Your task to perform on an android device: Clear all items from cart on target. Add "macbook air" to the cart on target, then select checkout. Image 0: 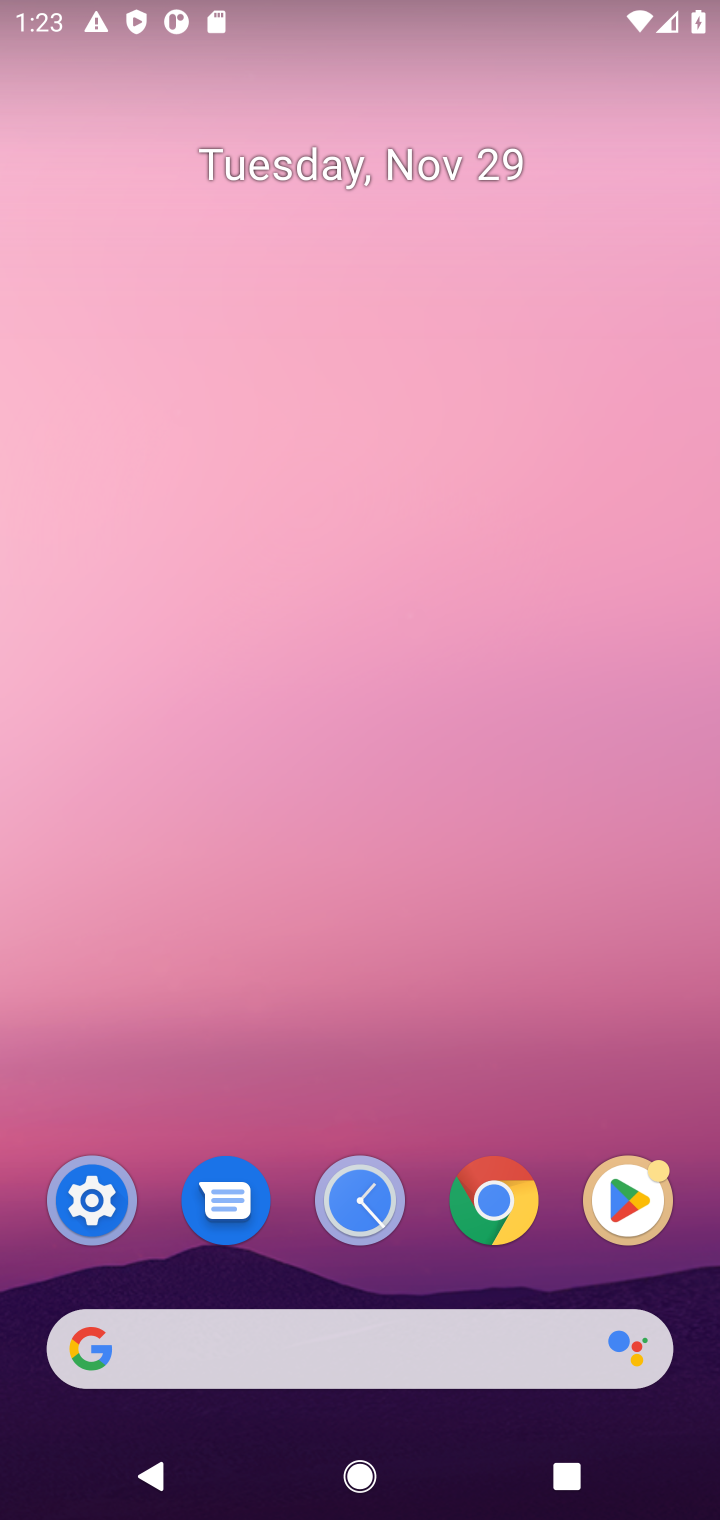
Step 0: click (270, 1358)
Your task to perform on an android device: Clear all items from cart on target. Add "macbook air" to the cart on target, then select checkout. Image 1: 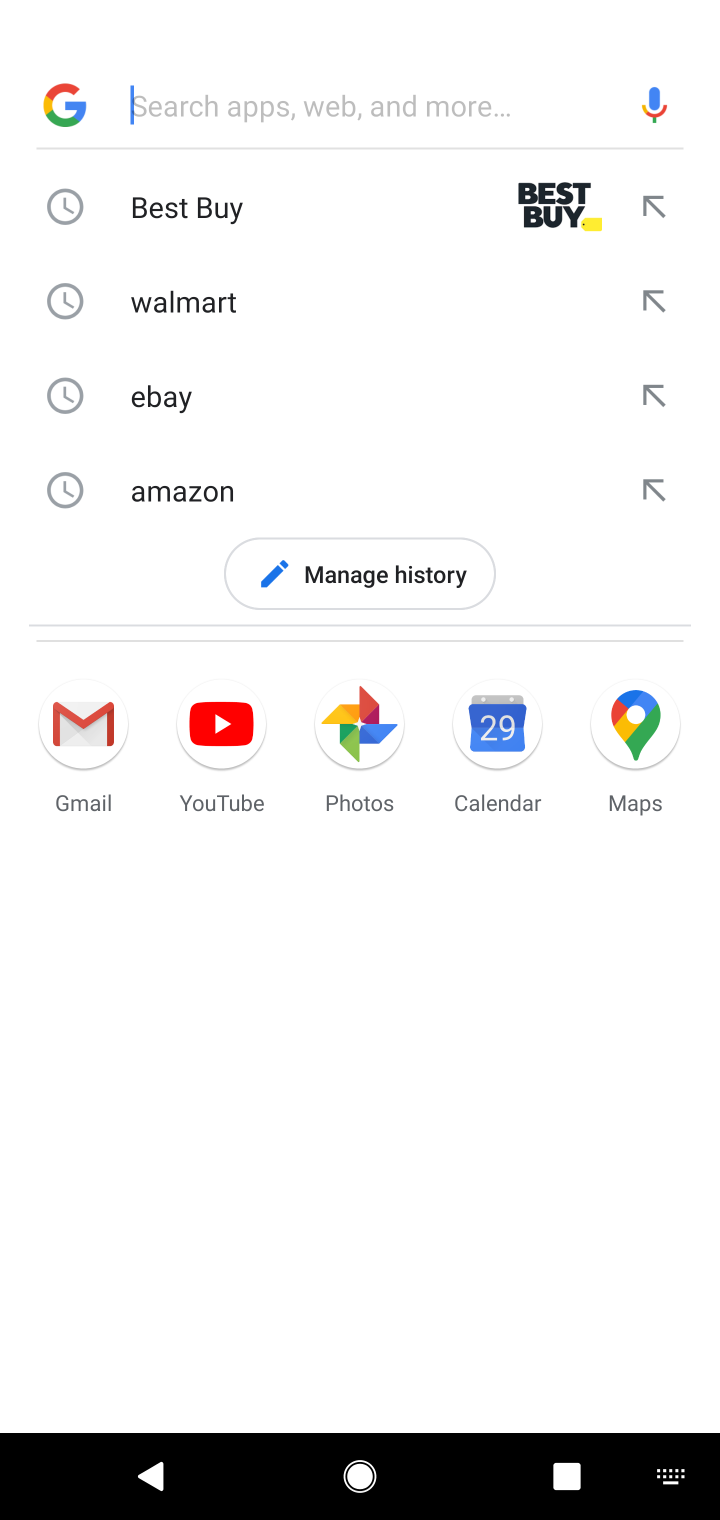
Step 1: type "macbook air"
Your task to perform on an android device: Clear all items from cart on target. Add "macbook air" to the cart on target, then select checkout. Image 2: 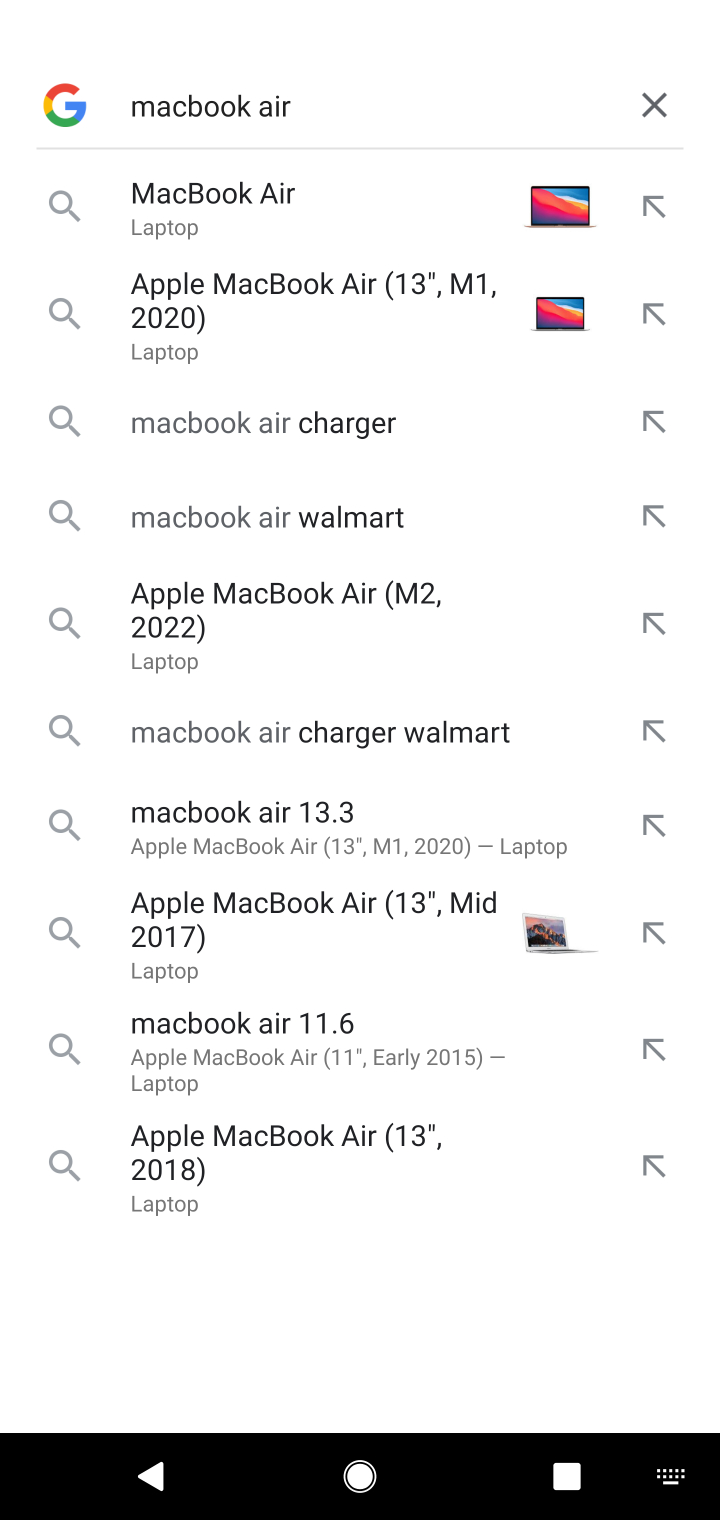
Step 2: click (212, 153)
Your task to perform on an android device: Clear all items from cart on target. Add "macbook air" to the cart on target, then select checkout. Image 3: 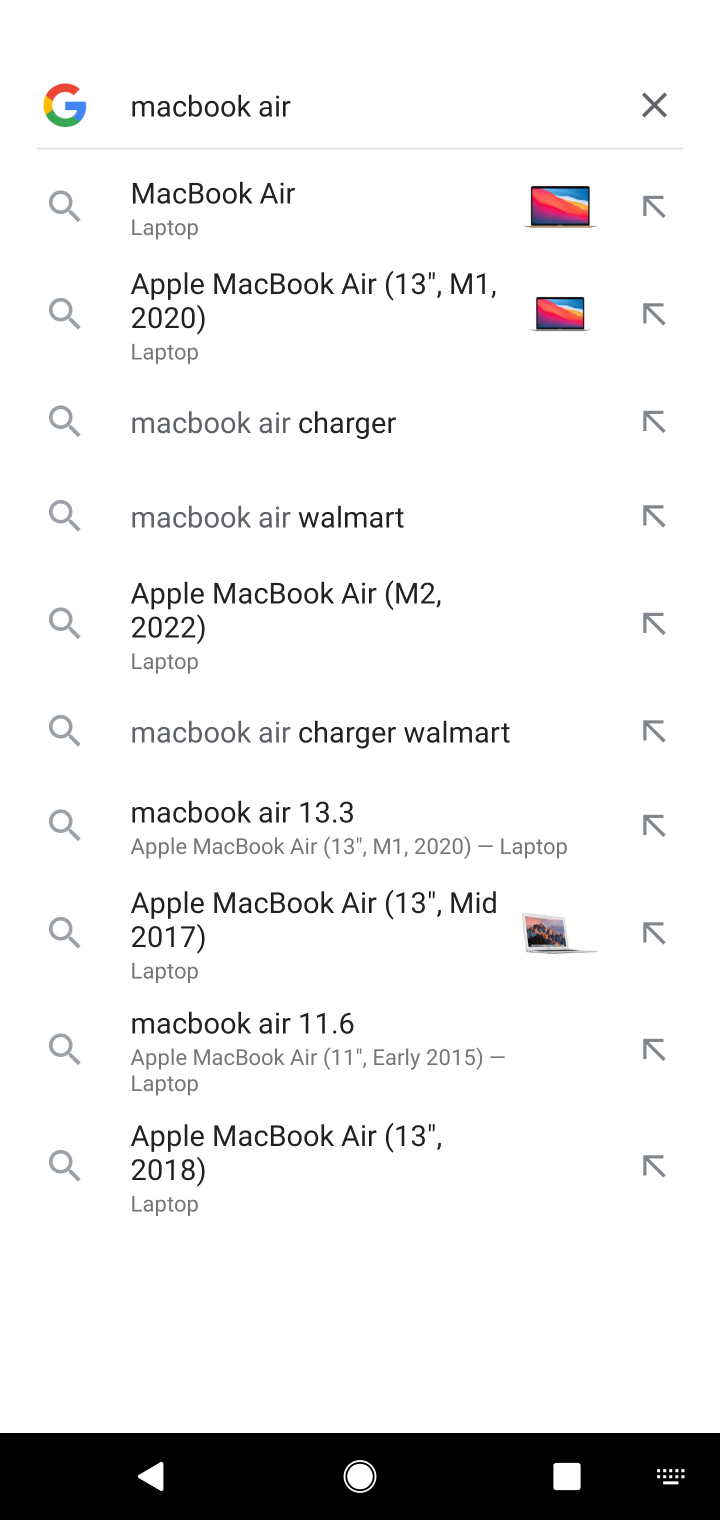
Step 3: task complete